Your task to perform on an android device: see creations saved in the google photos Image 0: 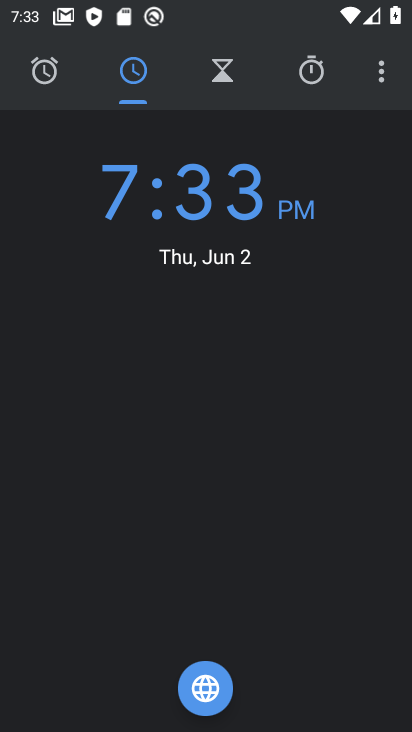
Step 0: press home button
Your task to perform on an android device: see creations saved in the google photos Image 1: 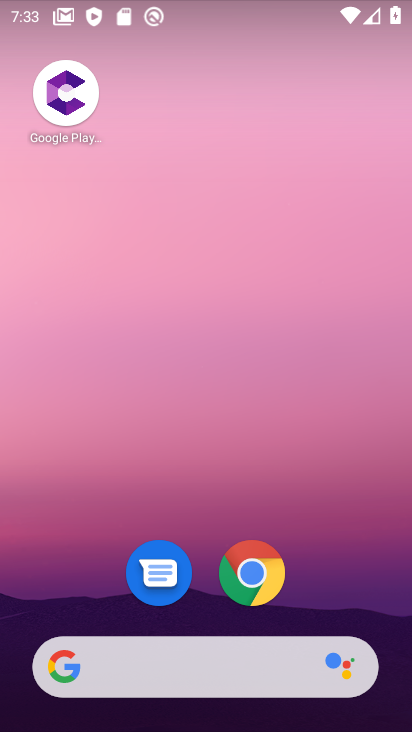
Step 1: drag from (326, 601) to (401, 24)
Your task to perform on an android device: see creations saved in the google photos Image 2: 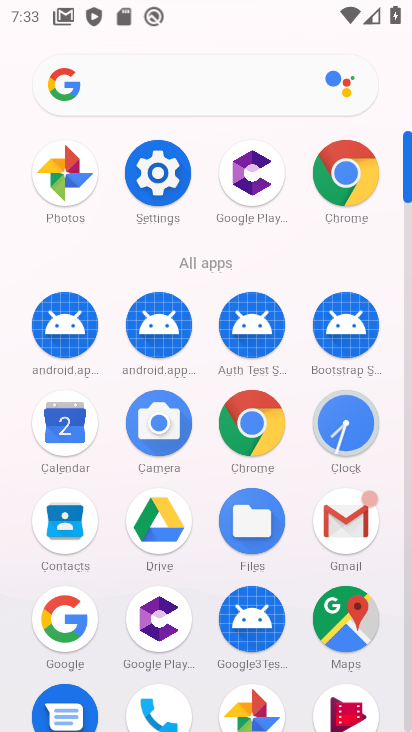
Step 2: click (265, 716)
Your task to perform on an android device: see creations saved in the google photos Image 3: 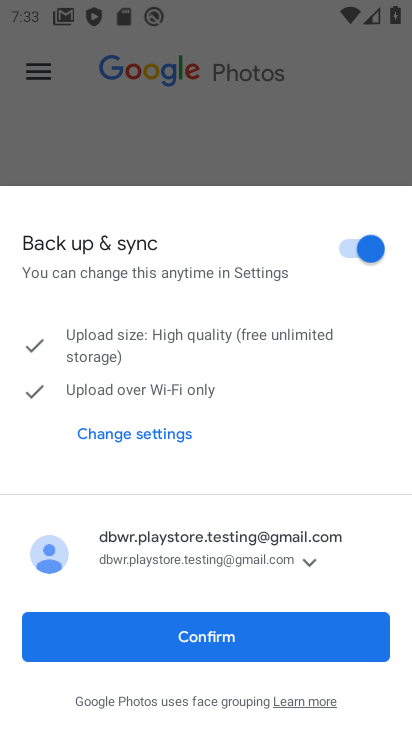
Step 3: click (217, 635)
Your task to perform on an android device: see creations saved in the google photos Image 4: 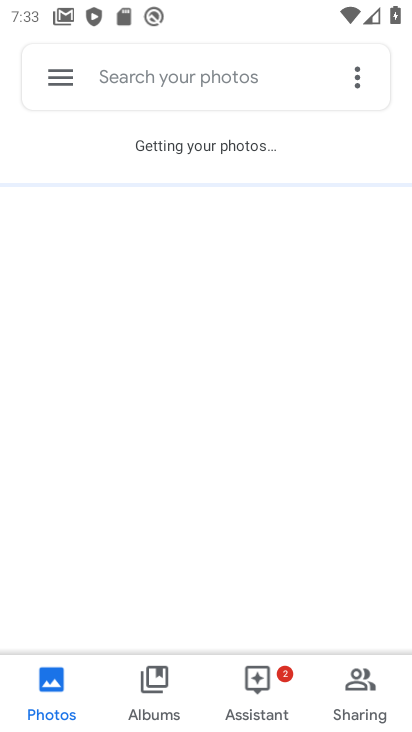
Step 4: click (147, 699)
Your task to perform on an android device: see creations saved in the google photos Image 5: 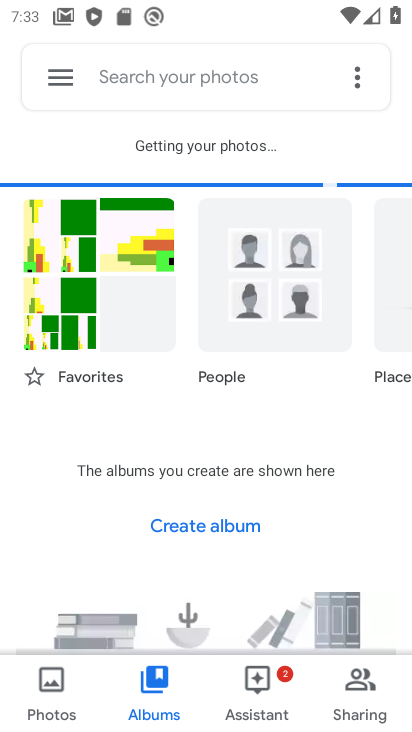
Step 5: task complete